Your task to perform on an android device: clear all cookies in the chrome app Image 0: 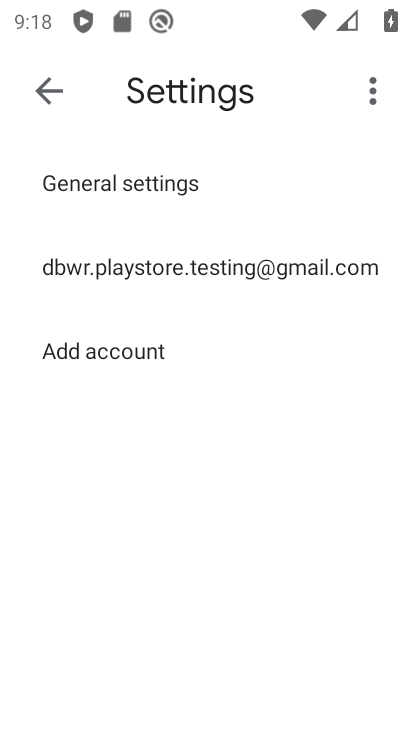
Step 0: press home button
Your task to perform on an android device: clear all cookies in the chrome app Image 1: 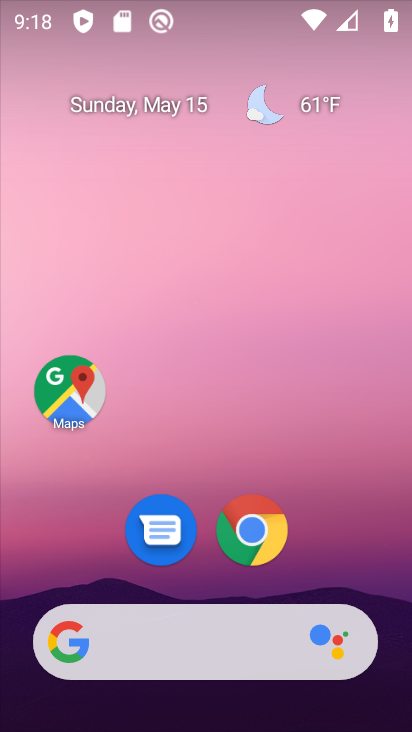
Step 1: click (253, 527)
Your task to perform on an android device: clear all cookies in the chrome app Image 2: 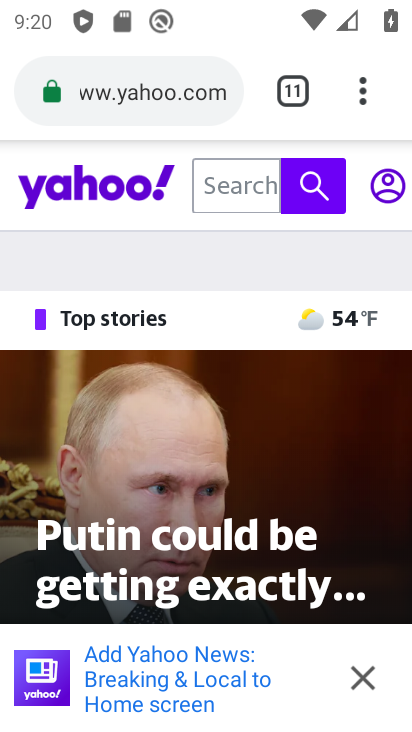
Step 2: click (360, 103)
Your task to perform on an android device: clear all cookies in the chrome app Image 3: 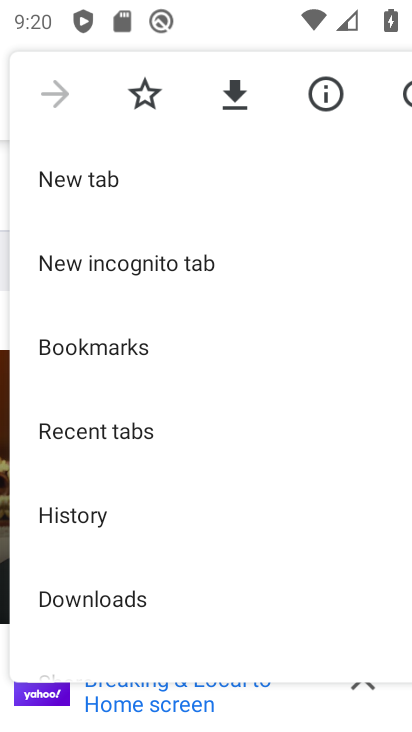
Step 3: drag from (192, 560) to (243, 223)
Your task to perform on an android device: clear all cookies in the chrome app Image 4: 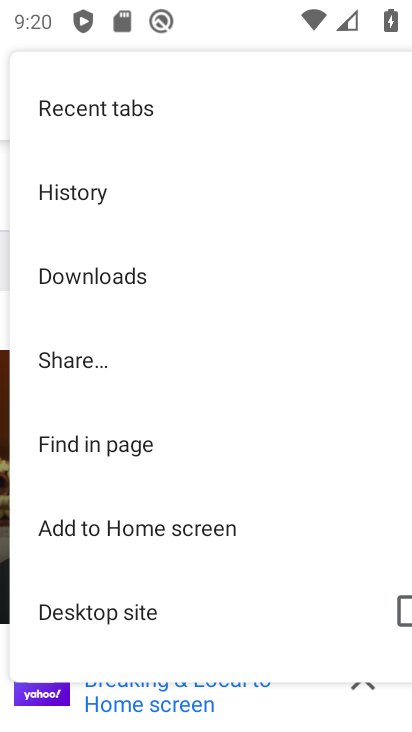
Step 4: click (73, 354)
Your task to perform on an android device: clear all cookies in the chrome app Image 5: 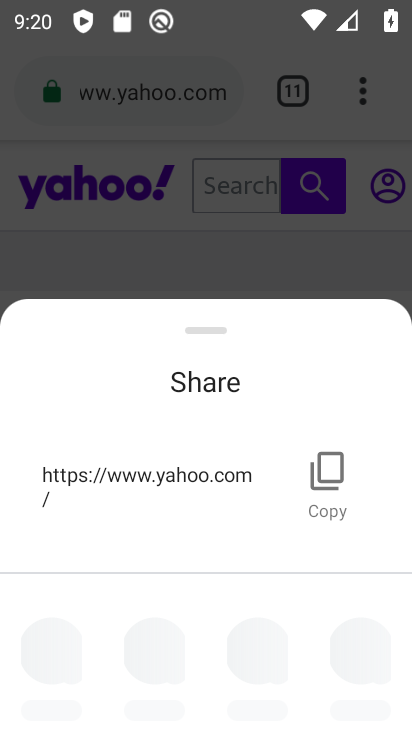
Step 5: click (384, 125)
Your task to perform on an android device: clear all cookies in the chrome app Image 6: 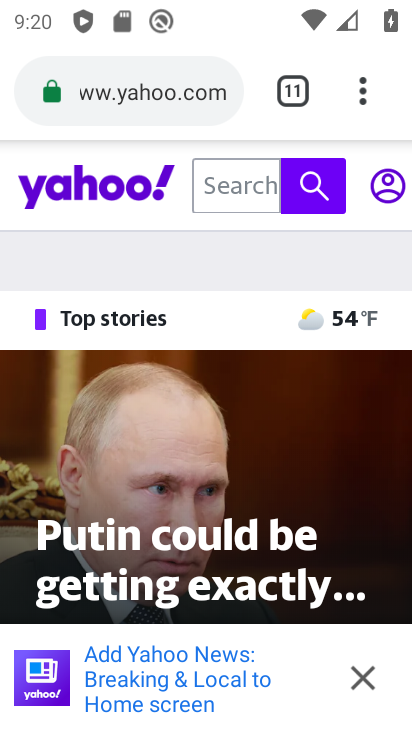
Step 6: click (363, 99)
Your task to perform on an android device: clear all cookies in the chrome app Image 7: 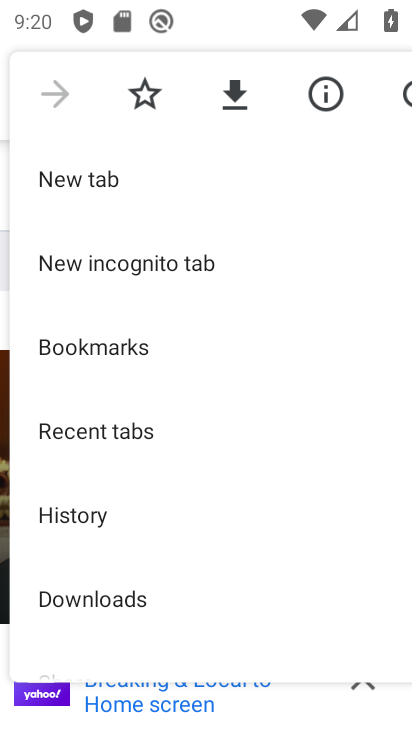
Step 7: click (60, 511)
Your task to perform on an android device: clear all cookies in the chrome app Image 8: 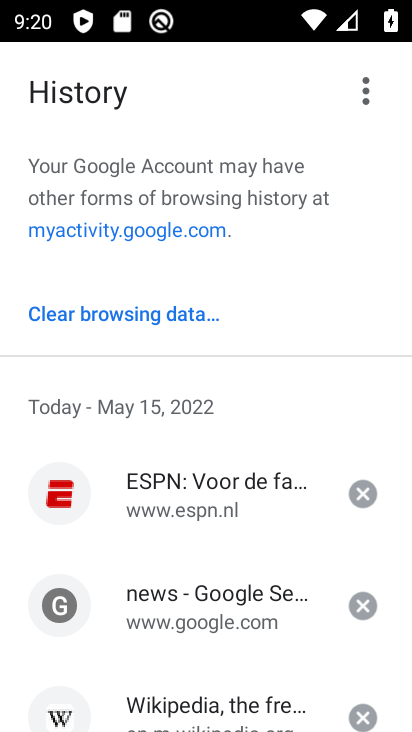
Step 8: click (140, 317)
Your task to perform on an android device: clear all cookies in the chrome app Image 9: 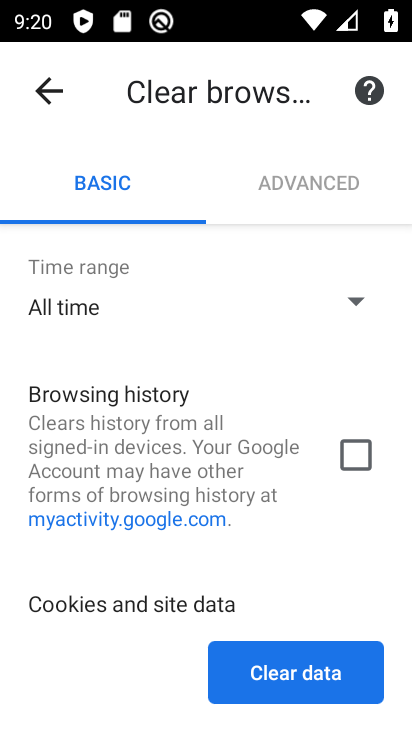
Step 9: drag from (234, 537) to (269, 181)
Your task to perform on an android device: clear all cookies in the chrome app Image 10: 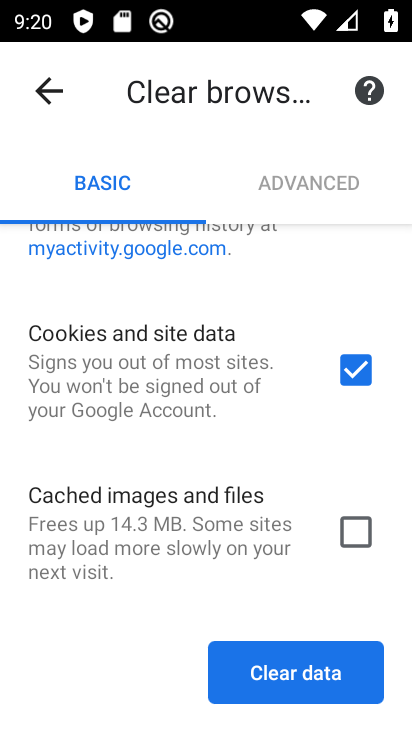
Step 10: click (272, 680)
Your task to perform on an android device: clear all cookies in the chrome app Image 11: 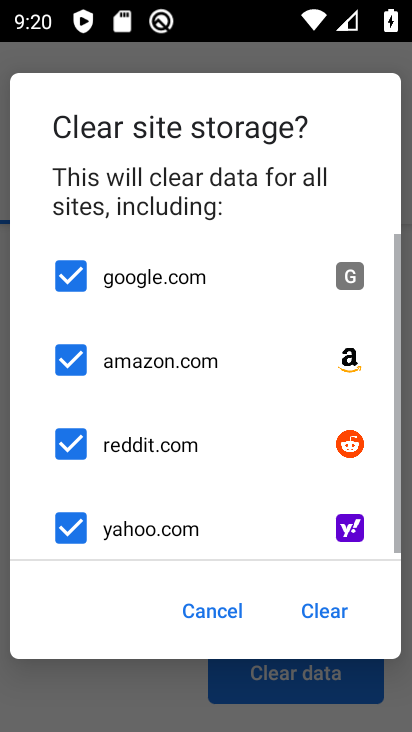
Step 11: click (311, 599)
Your task to perform on an android device: clear all cookies in the chrome app Image 12: 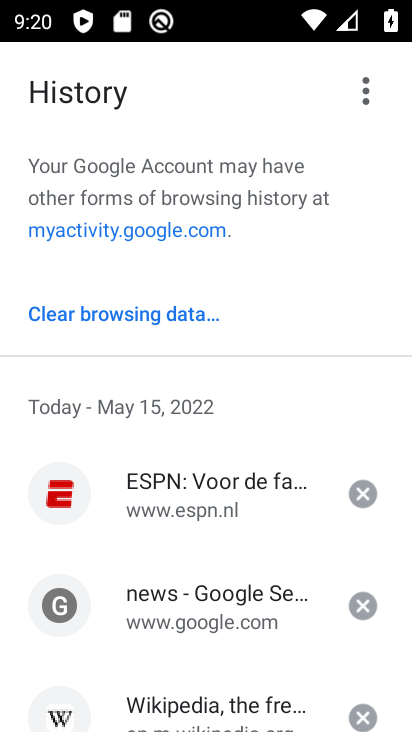
Step 12: task complete